Your task to perform on an android device: Check the news Image 0: 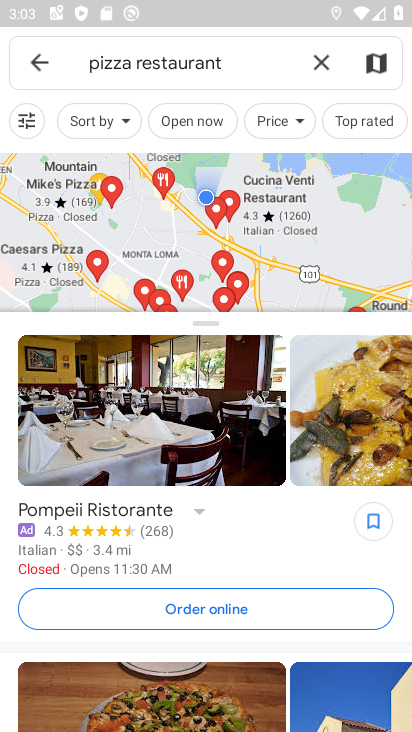
Step 0: press home button
Your task to perform on an android device: Check the news Image 1: 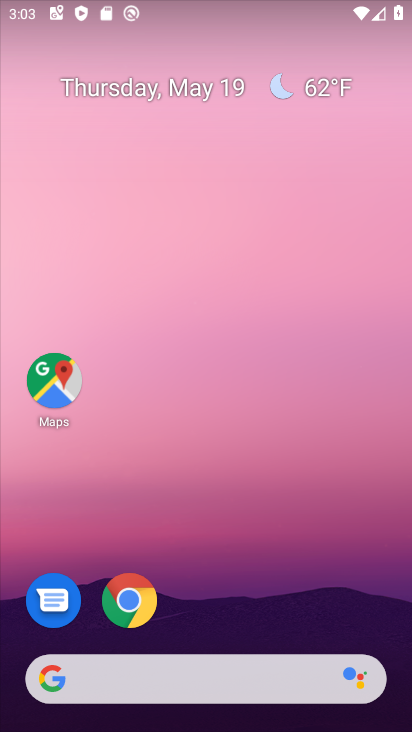
Step 1: click (155, 681)
Your task to perform on an android device: Check the news Image 2: 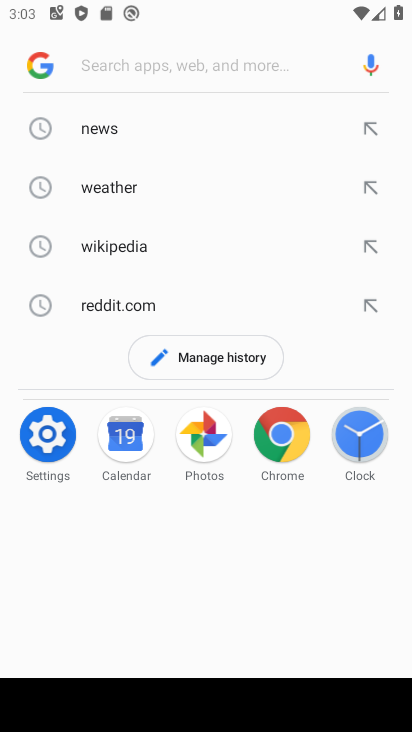
Step 2: click (141, 136)
Your task to perform on an android device: Check the news Image 3: 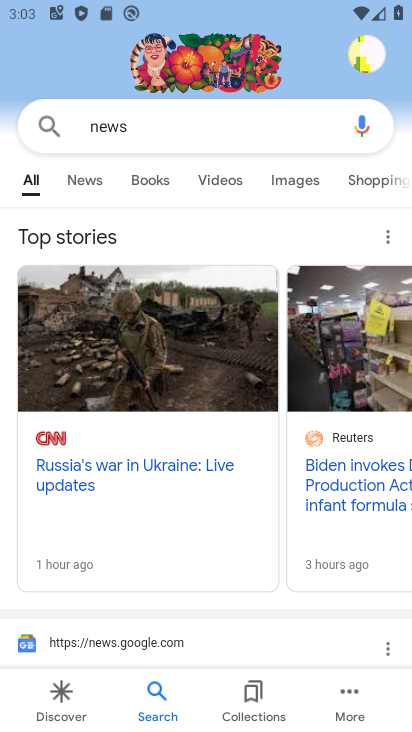
Step 3: task complete